Your task to perform on an android device: Open Google Image 0: 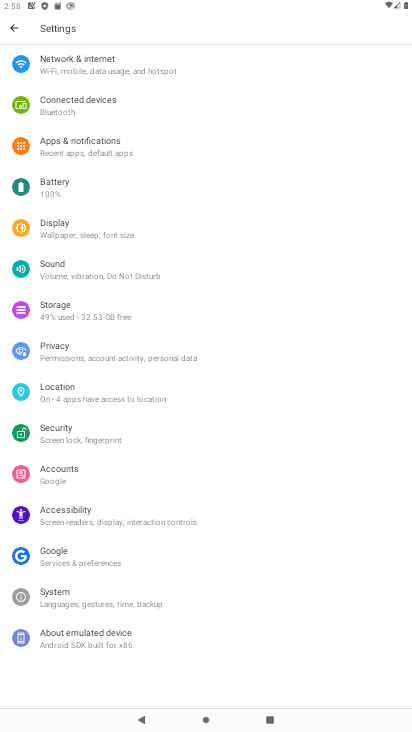
Step 0: press home button
Your task to perform on an android device: Open Google Image 1: 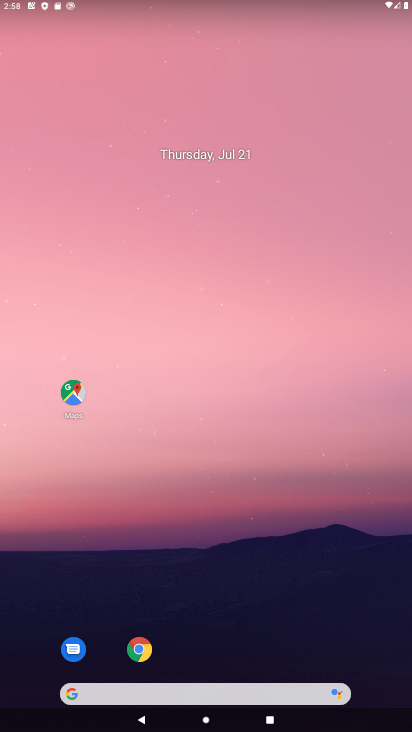
Step 1: click (220, 704)
Your task to perform on an android device: Open Google Image 2: 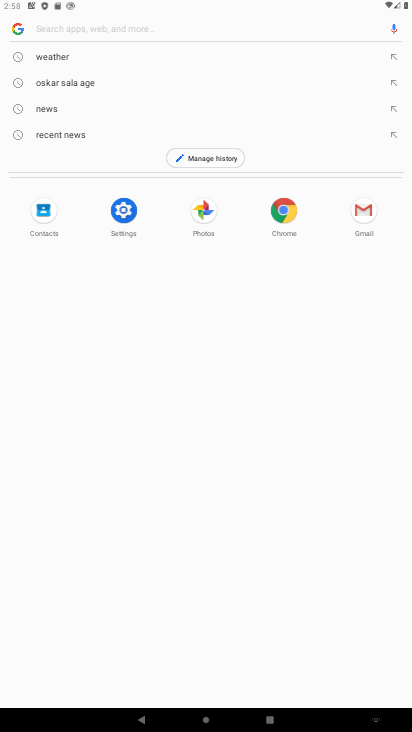
Step 2: type "google.com"
Your task to perform on an android device: Open Google Image 3: 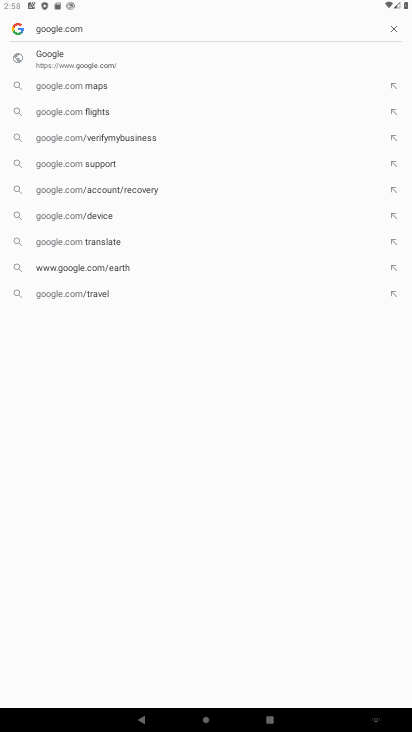
Step 3: click (123, 75)
Your task to perform on an android device: Open Google Image 4: 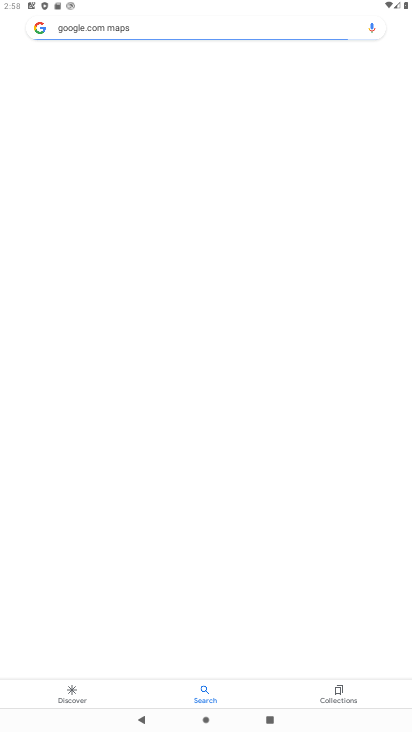
Step 4: task complete